Your task to perform on an android device: Open the calendar app, open the side menu, and click the "Day" option Image 0: 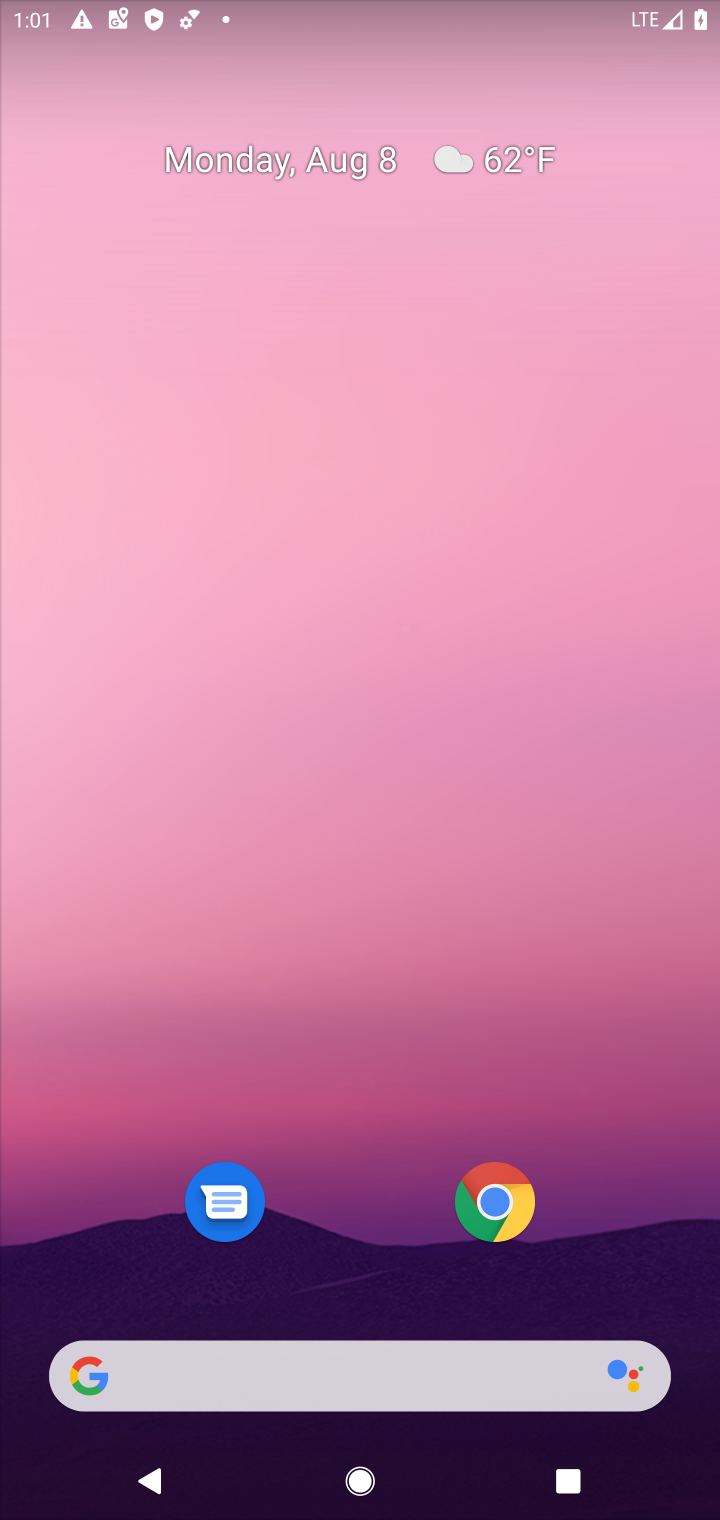
Step 0: drag from (354, 1027) to (503, 185)
Your task to perform on an android device: Open the calendar app, open the side menu, and click the "Day" option Image 1: 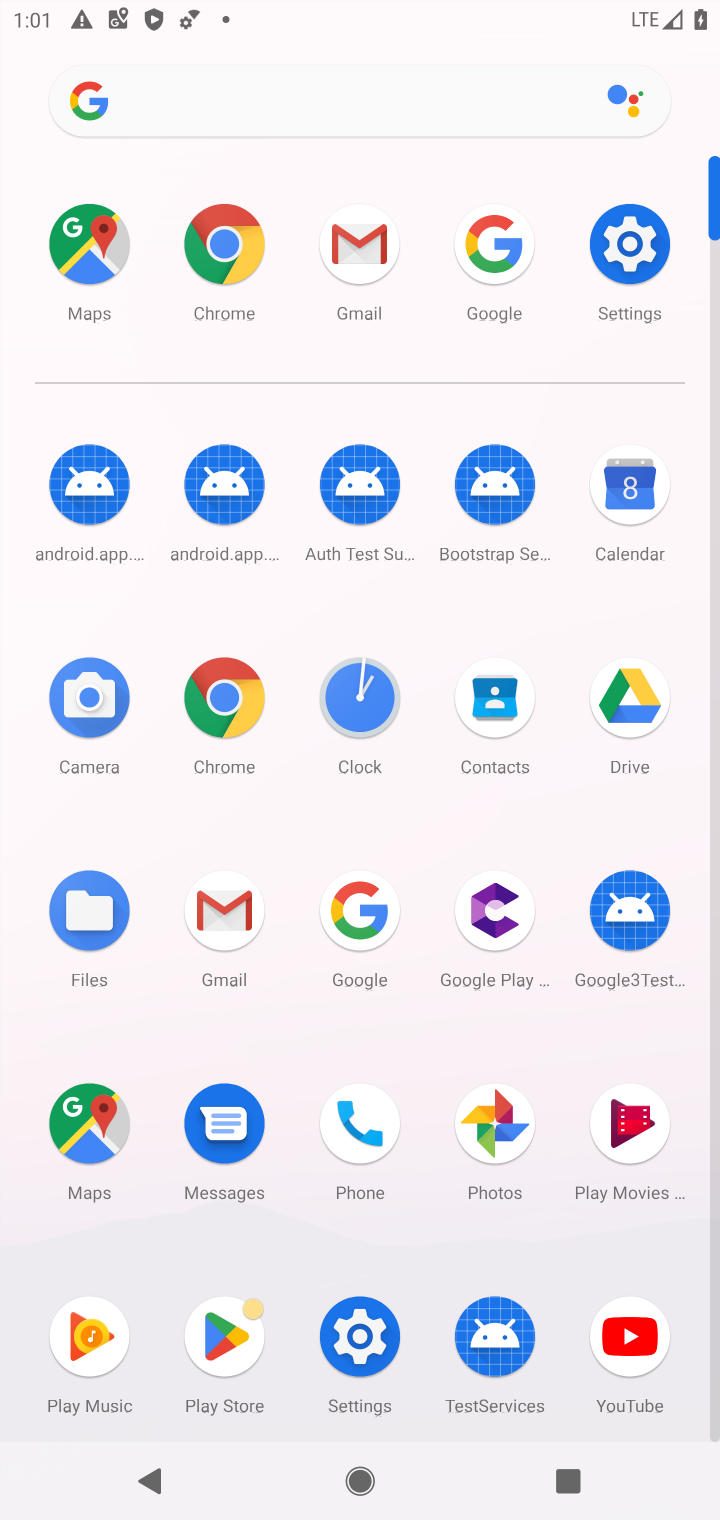
Step 1: click (619, 537)
Your task to perform on an android device: Open the calendar app, open the side menu, and click the "Day" option Image 2: 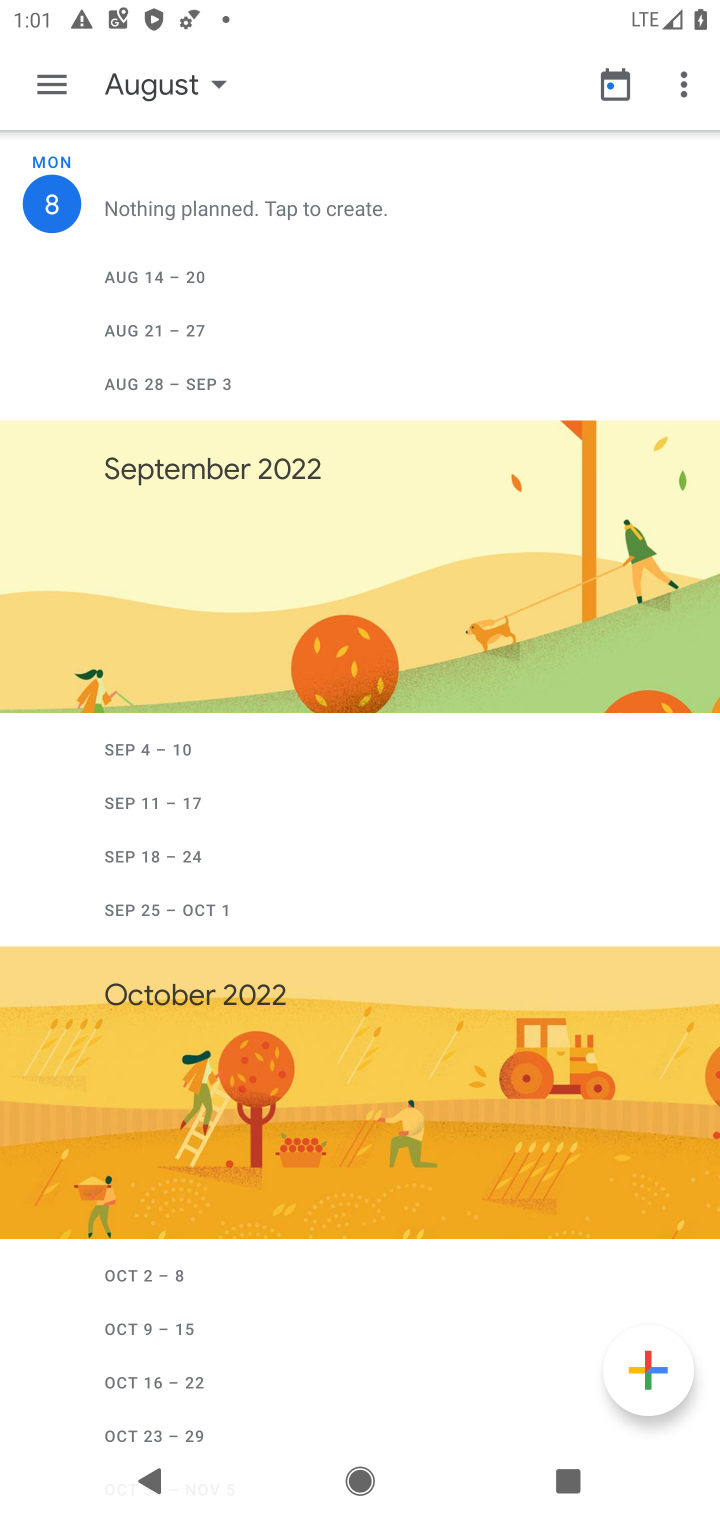
Step 2: click (59, 74)
Your task to perform on an android device: Open the calendar app, open the side menu, and click the "Day" option Image 3: 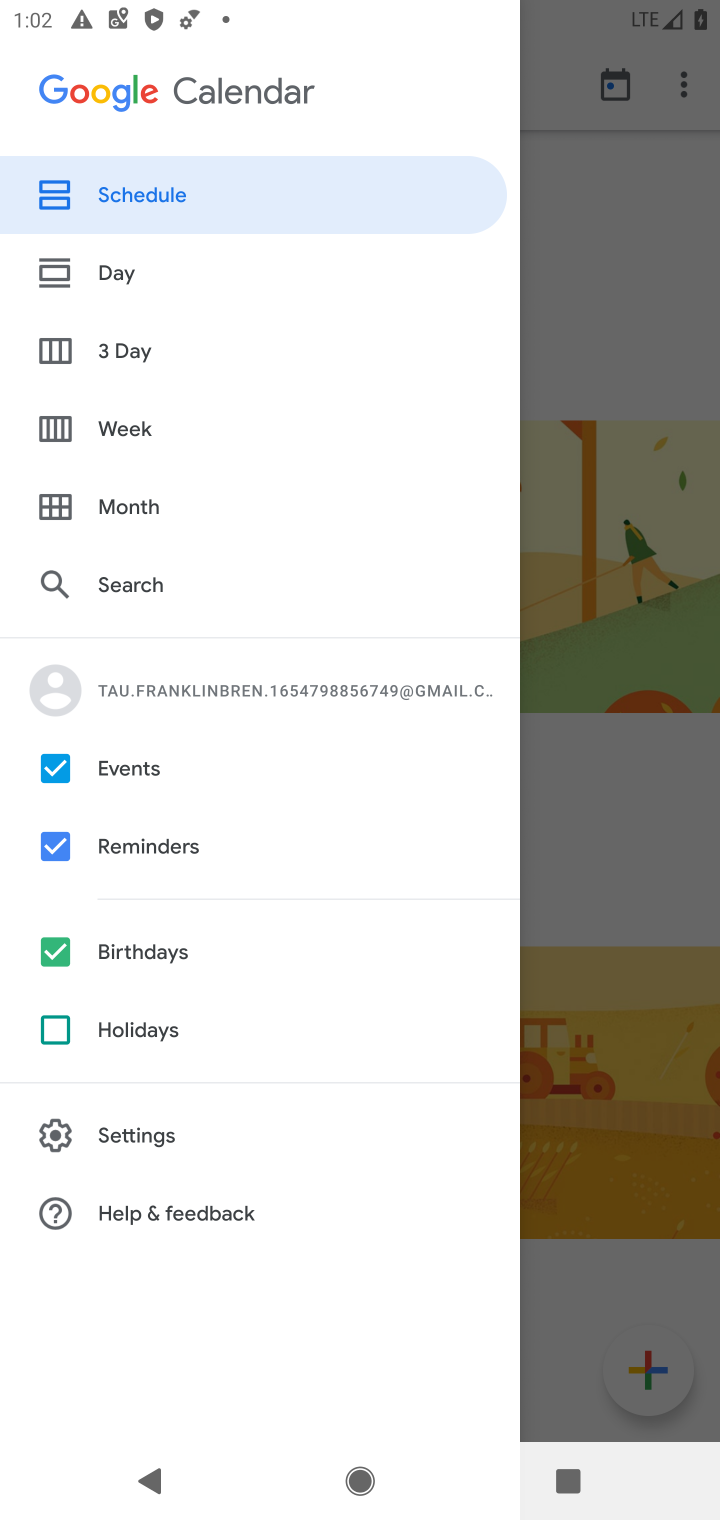
Step 3: click (90, 275)
Your task to perform on an android device: Open the calendar app, open the side menu, and click the "Day" option Image 4: 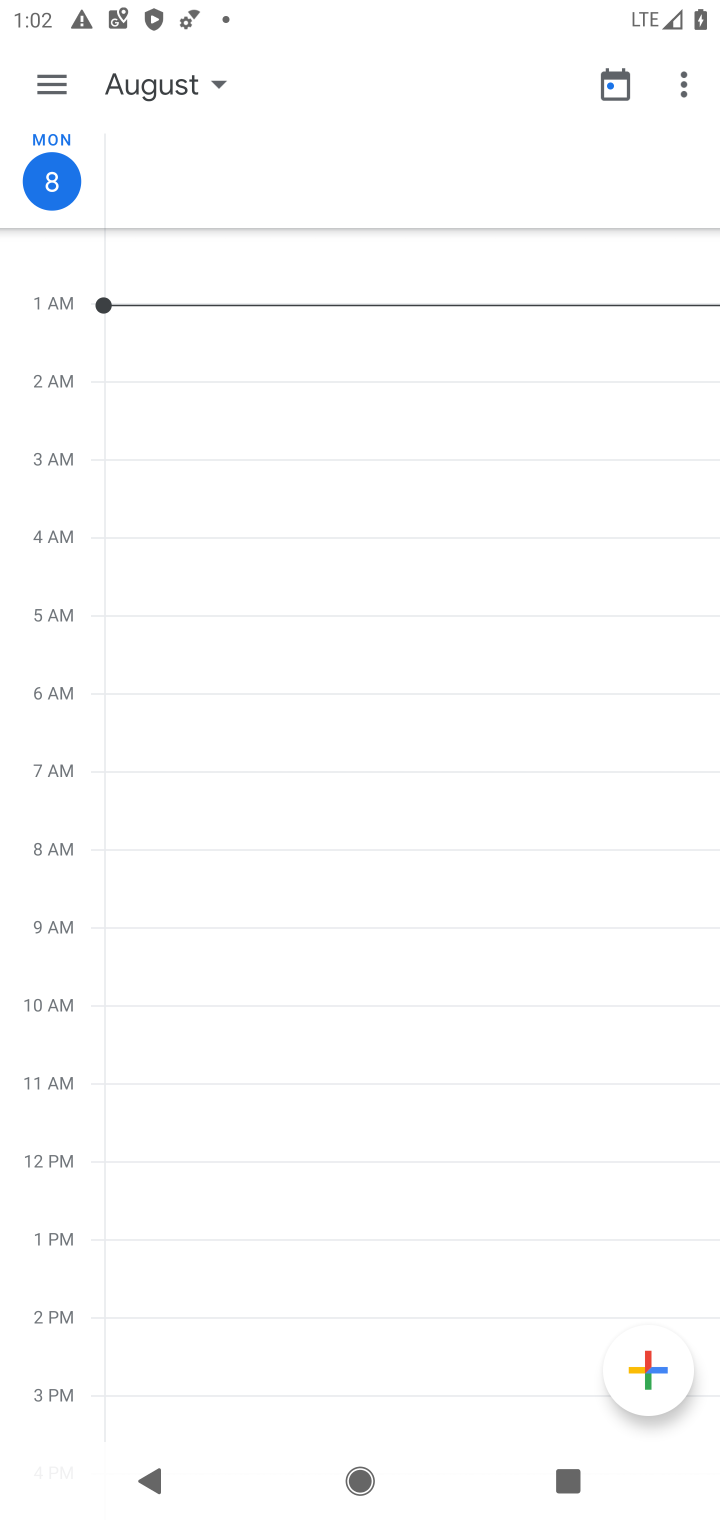
Step 4: task complete